Your task to perform on an android device: Open Google Image 0: 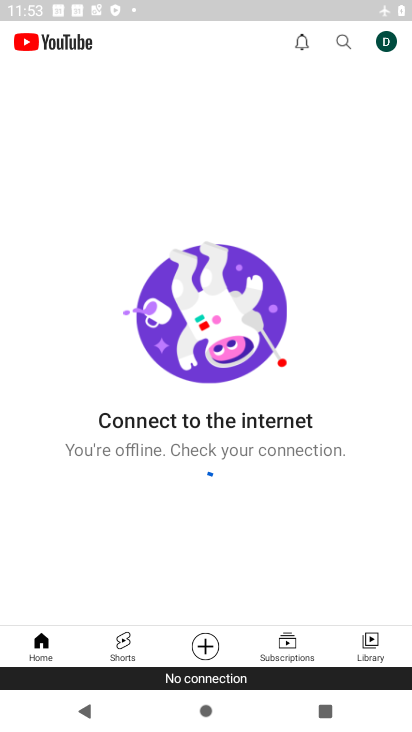
Step 0: press back button
Your task to perform on an android device: Open Google Image 1: 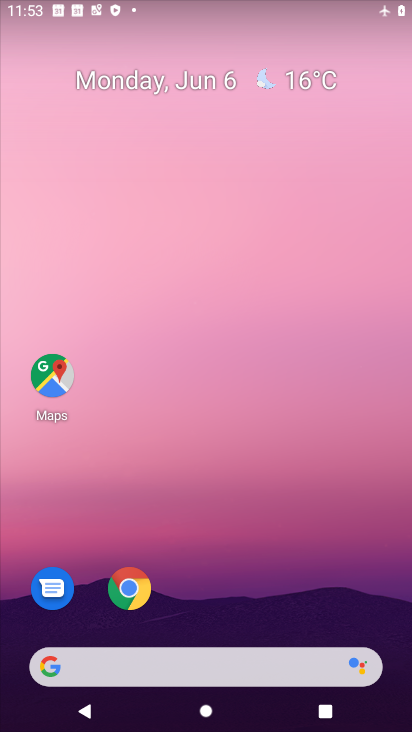
Step 1: click (247, 673)
Your task to perform on an android device: Open Google Image 2: 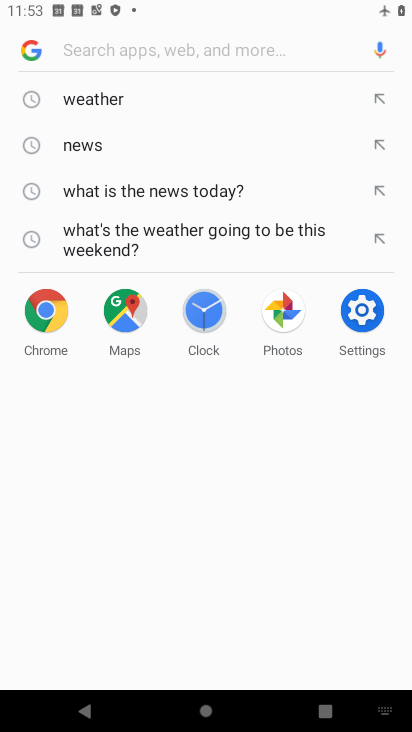
Step 2: task complete